Your task to perform on an android device: add a label to a message in the gmail app Image 0: 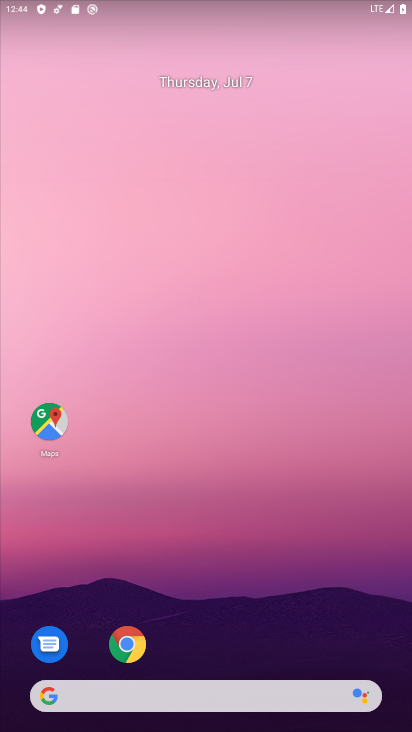
Step 0: drag from (392, 689) to (351, 166)
Your task to perform on an android device: add a label to a message in the gmail app Image 1: 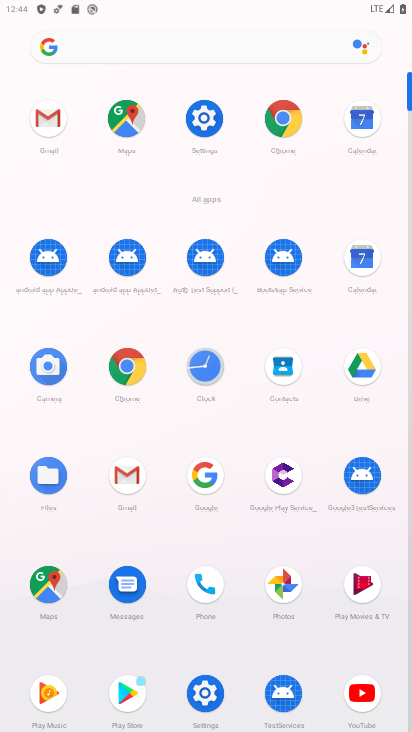
Step 1: click (128, 471)
Your task to perform on an android device: add a label to a message in the gmail app Image 2: 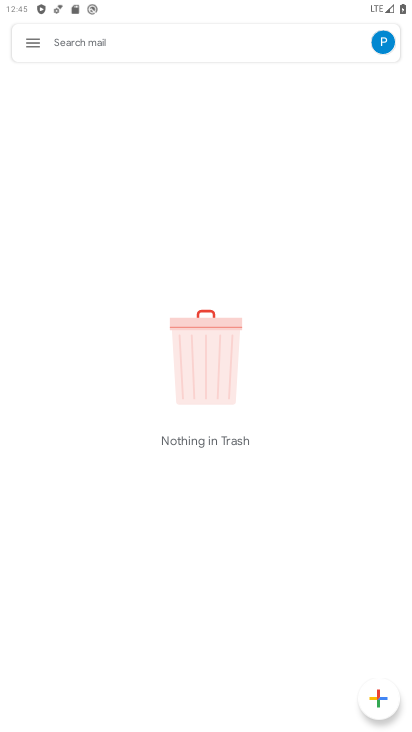
Step 2: task complete